Your task to perform on an android device: turn on improve location accuracy Image 0: 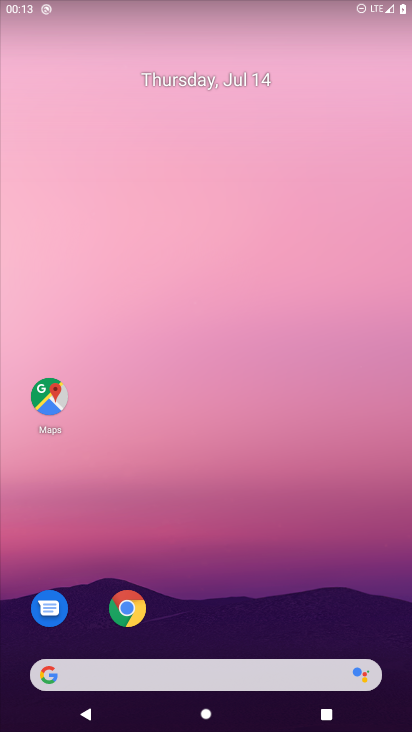
Step 0: drag from (189, 572) to (325, 6)
Your task to perform on an android device: turn on improve location accuracy Image 1: 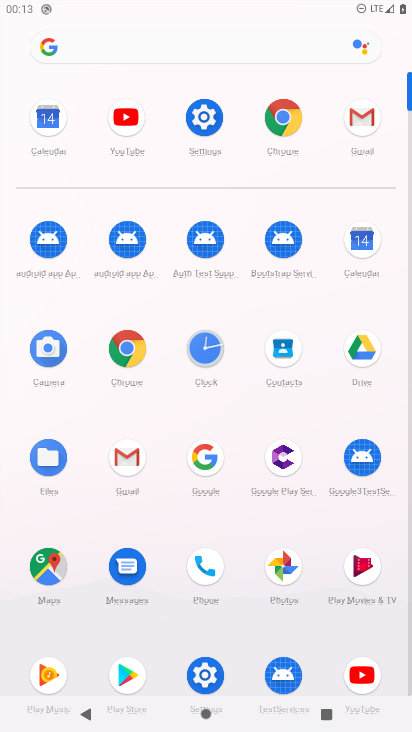
Step 1: click (209, 110)
Your task to perform on an android device: turn on improve location accuracy Image 2: 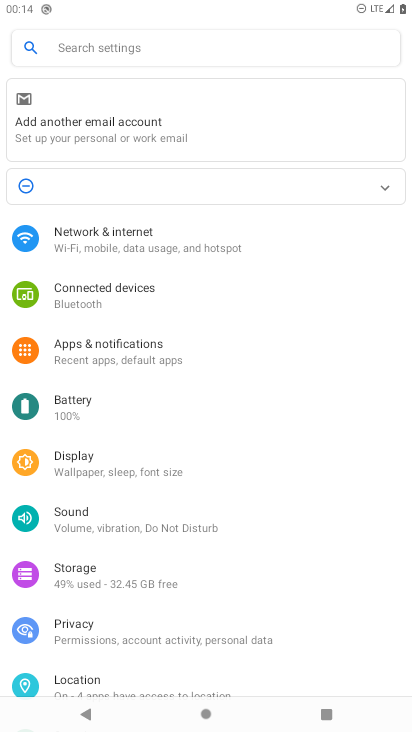
Step 2: click (75, 688)
Your task to perform on an android device: turn on improve location accuracy Image 3: 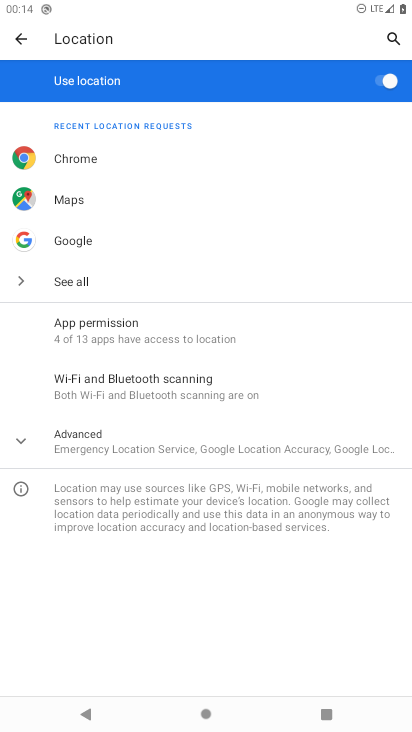
Step 3: click (92, 442)
Your task to perform on an android device: turn on improve location accuracy Image 4: 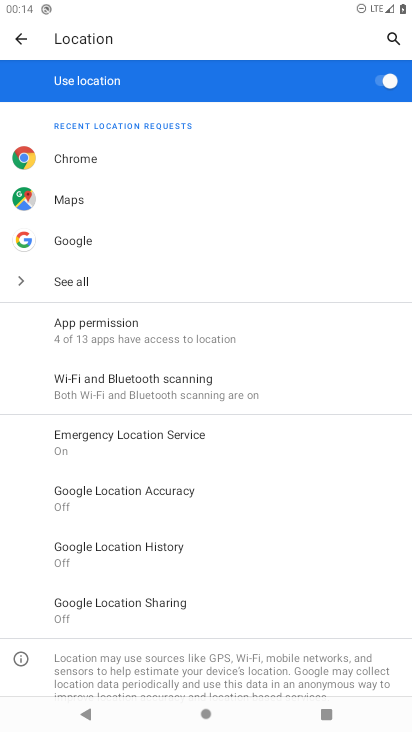
Step 4: click (97, 483)
Your task to perform on an android device: turn on improve location accuracy Image 5: 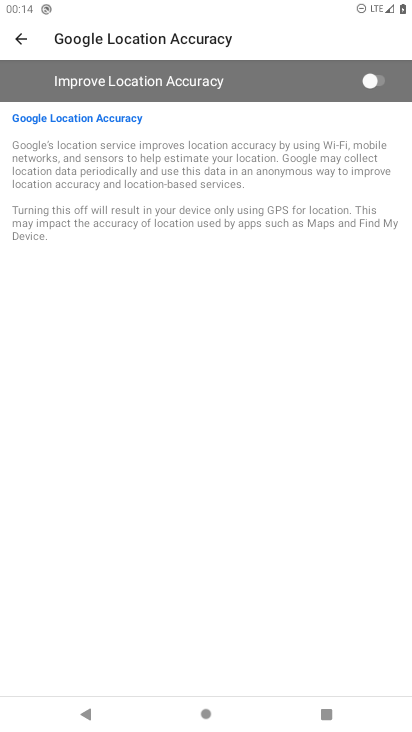
Step 5: click (231, 77)
Your task to perform on an android device: turn on improve location accuracy Image 6: 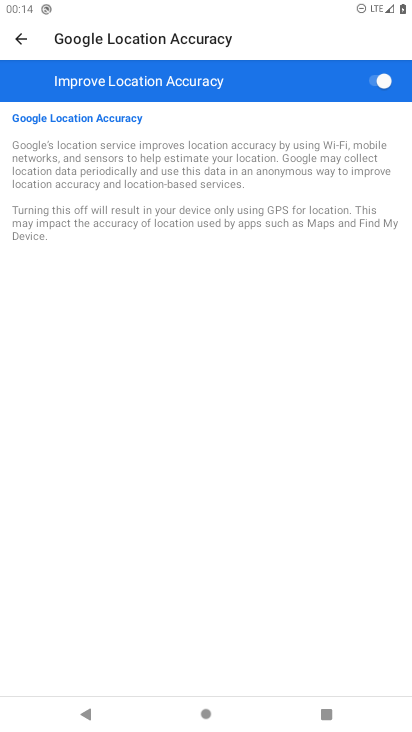
Step 6: task complete